Your task to perform on an android device: Open the Play Movies app and select the watchlist tab. Image 0: 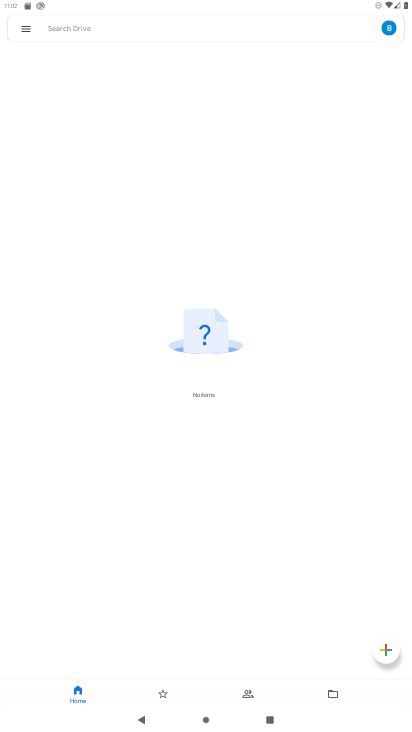
Step 0: press home button
Your task to perform on an android device: Open the Play Movies app and select the watchlist tab. Image 1: 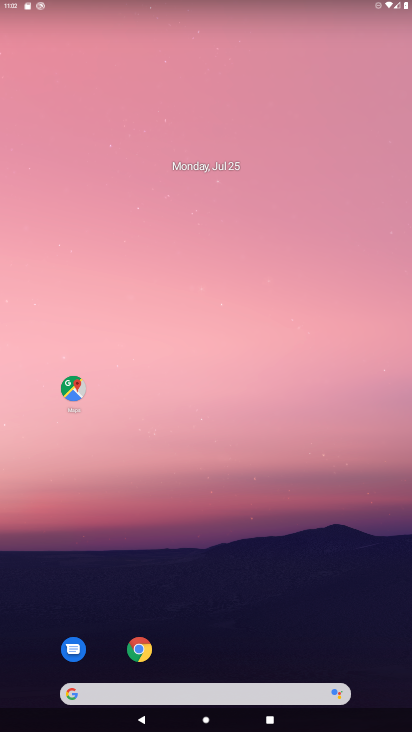
Step 1: drag from (389, 681) to (352, 126)
Your task to perform on an android device: Open the Play Movies app and select the watchlist tab. Image 2: 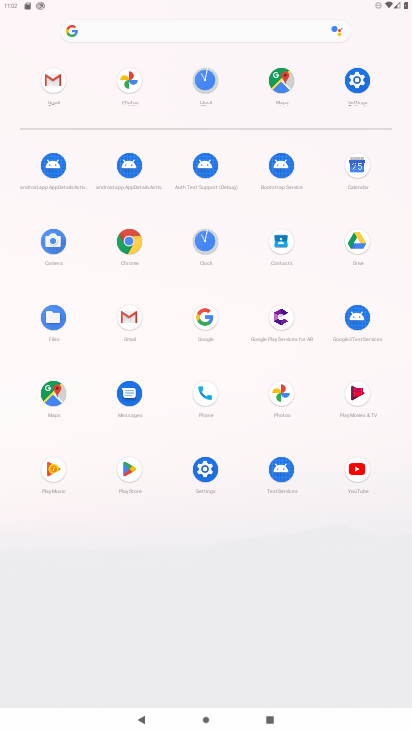
Step 2: click (355, 394)
Your task to perform on an android device: Open the Play Movies app and select the watchlist tab. Image 3: 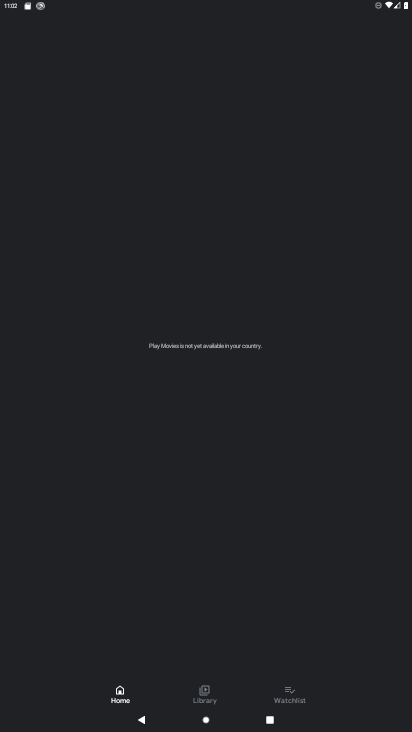
Step 3: click (292, 693)
Your task to perform on an android device: Open the Play Movies app and select the watchlist tab. Image 4: 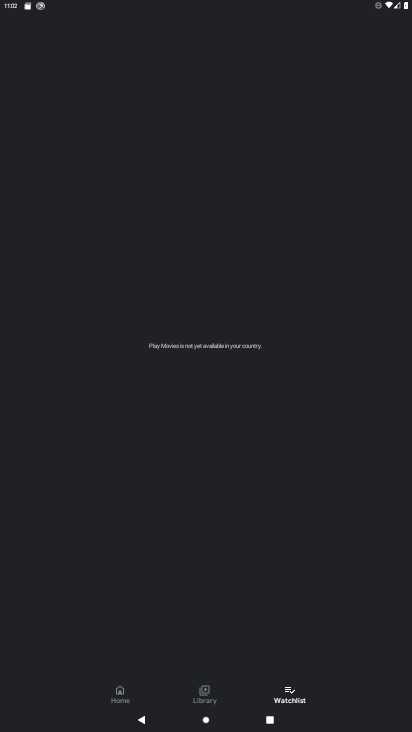
Step 4: task complete